Your task to perform on an android device: turn off notifications settings in the gmail app Image 0: 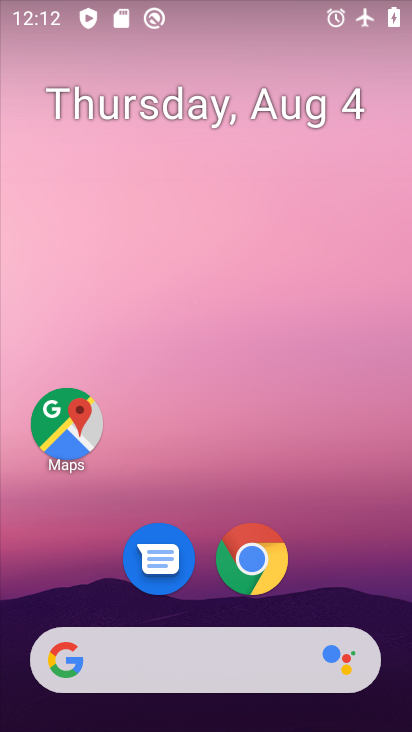
Step 0: drag from (202, 636) to (209, 107)
Your task to perform on an android device: turn off notifications settings in the gmail app Image 1: 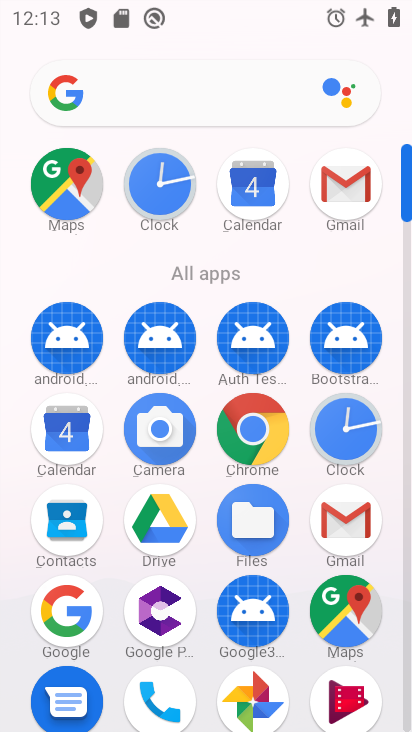
Step 1: click (344, 181)
Your task to perform on an android device: turn off notifications settings in the gmail app Image 2: 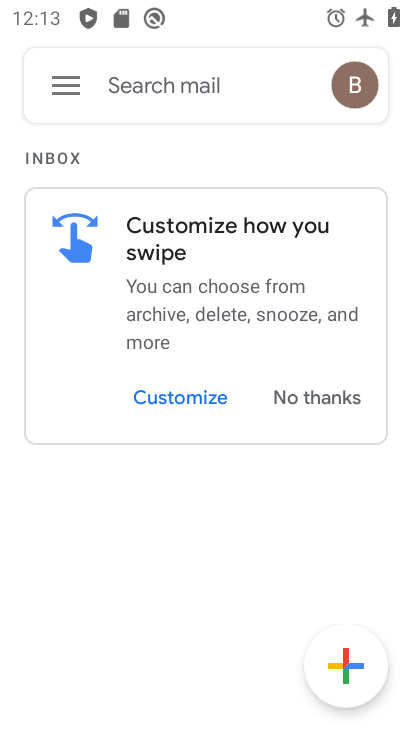
Step 2: click (68, 87)
Your task to perform on an android device: turn off notifications settings in the gmail app Image 3: 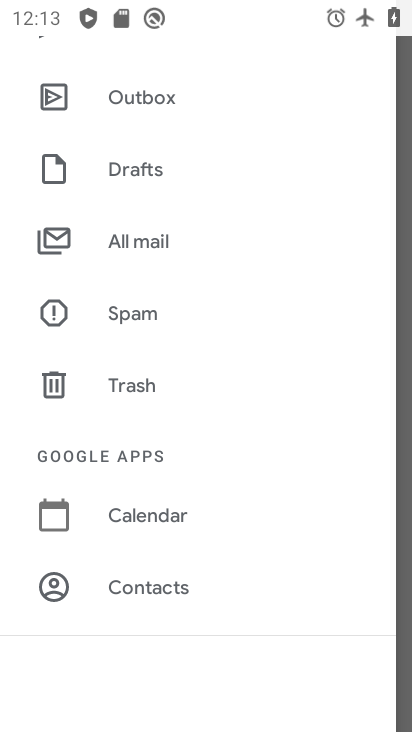
Step 3: drag from (174, 542) to (214, 388)
Your task to perform on an android device: turn off notifications settings in the gmail app Image 4: 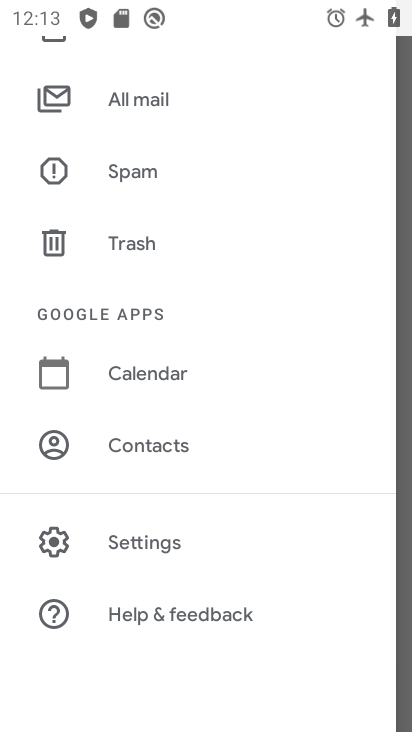
Step 4: click (157, 541)
Your task to perform on an android device: turn off notifications settings in the gmail app Image 5: 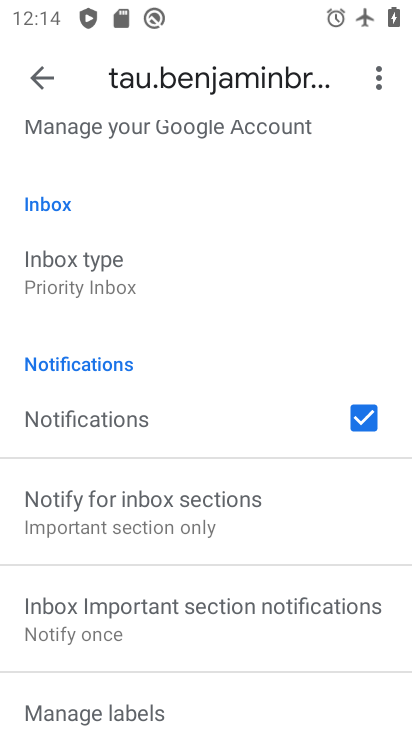
Step 5: drag from (164, 594) to (212, 484)
Your task to perform on an android device: turn off notifications settings in the gmail app Image 6: 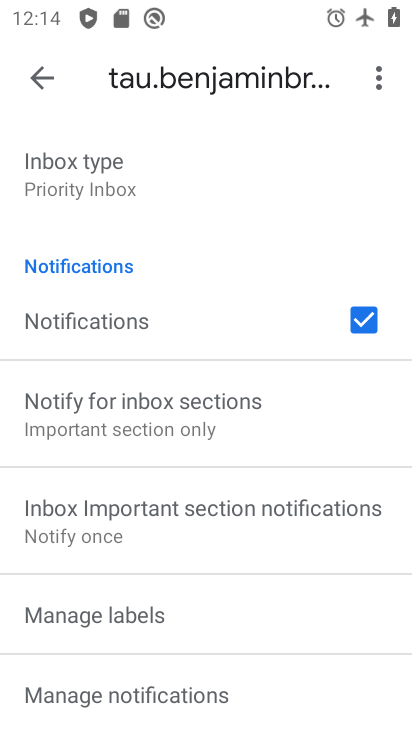
Step 6: drag from (170, 663) to (214, 545)
Your task to perform on an android device: turn off notifications settings in the gmail app Image 7: 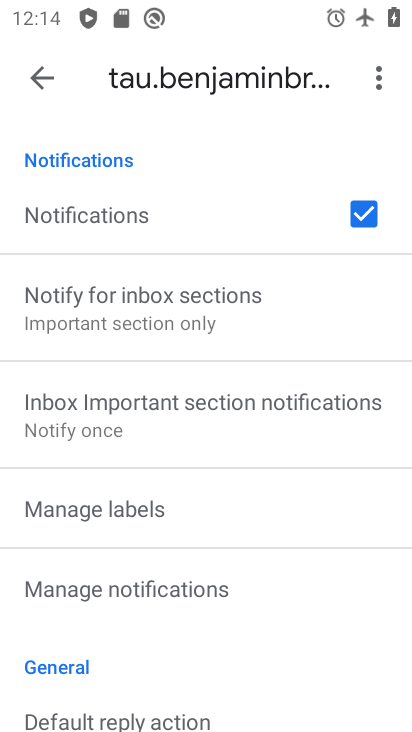
Step 7: click (205, 581)
Your task to perform on an android device: turn off notifications settings in the gmail app Image 8: 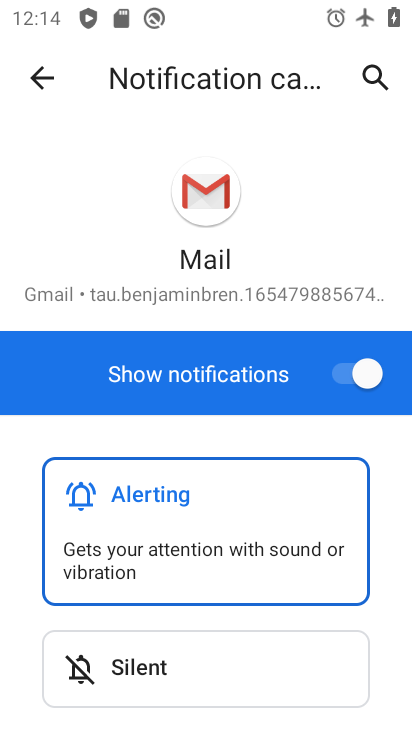
Step 8: click (338, 369)
Your task to perform on an android device: turn off notifications settings in the gmail app Image 9: 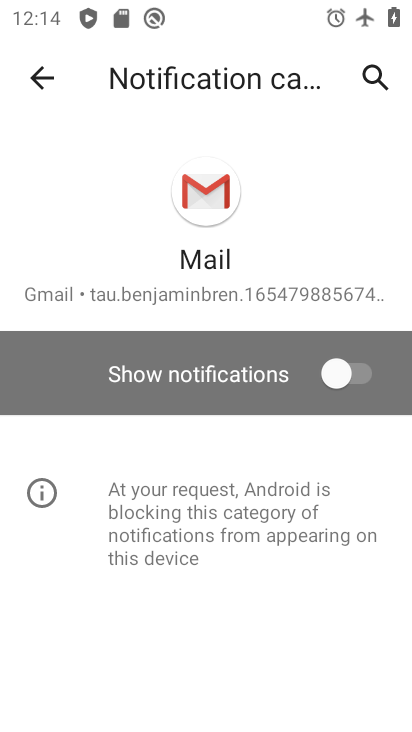
Step 9: task complete